Your task to perform on an android device: Open network settings Image 0: 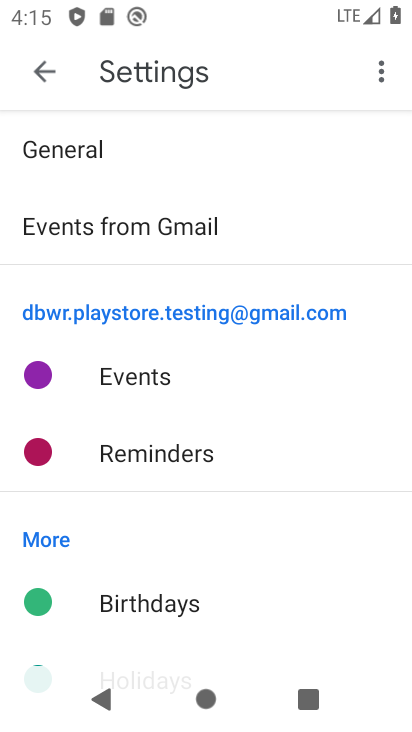
Step 0: press home button
Your task to perform on an android device: Open network settings Image 1: 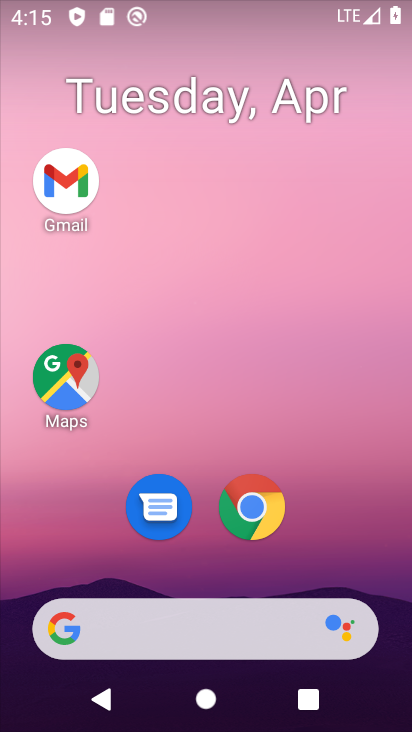
Step 1: drag from (182, 587) to (184, 84)
Your task to perform on an android device: Open network settings Image 2: 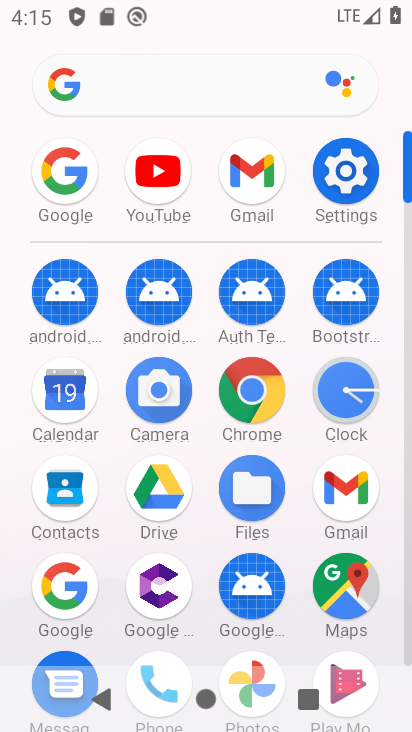
Step 2: click (324, 161)
Your task to perform on an android device: Open network settings Image 3: 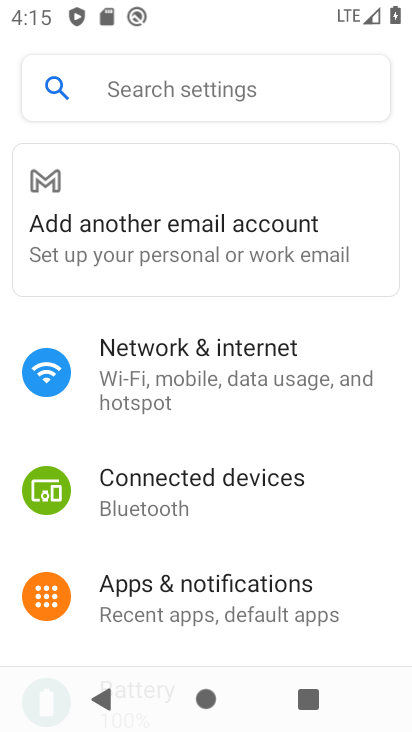
Step 3: click (198, 390)
Your task to perform on an android device: Open network settings Image 4: 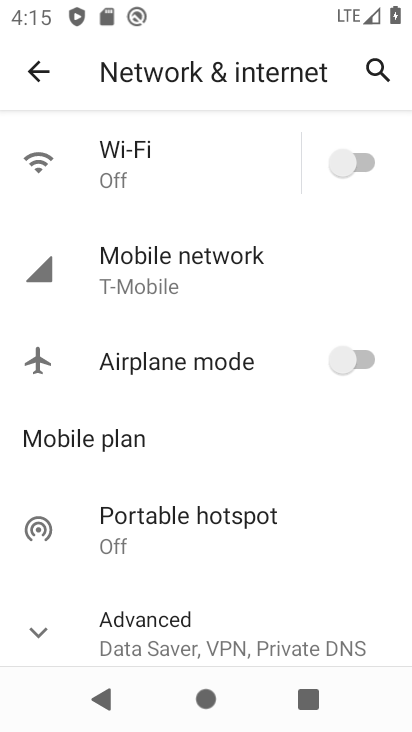
Step 4: task complete